Your task to perform on an android device: set the stopwatch Image 0: 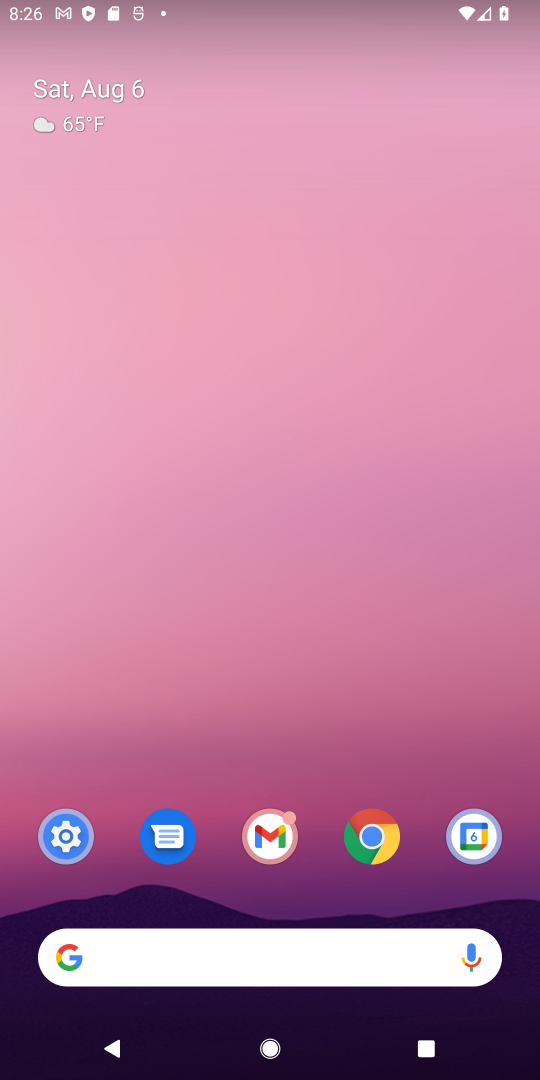
Step 0: drag from (397, 565) to (287, 93)
Your task to perform on an android device: set the stopwatch Image 1: 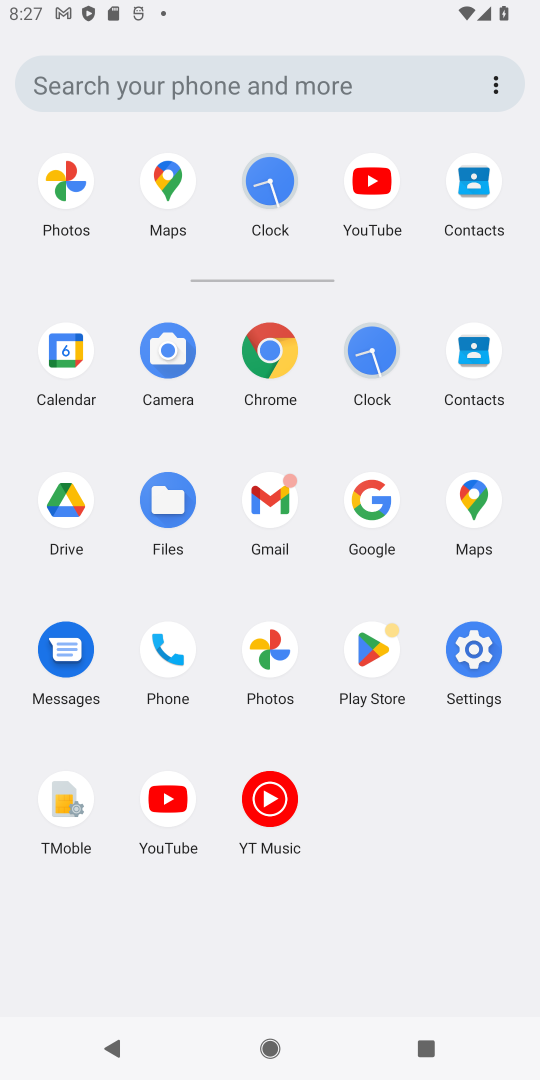
Step 1: click (354, 334)
Your task to perform on an android device: set the stopwatch Image 2: 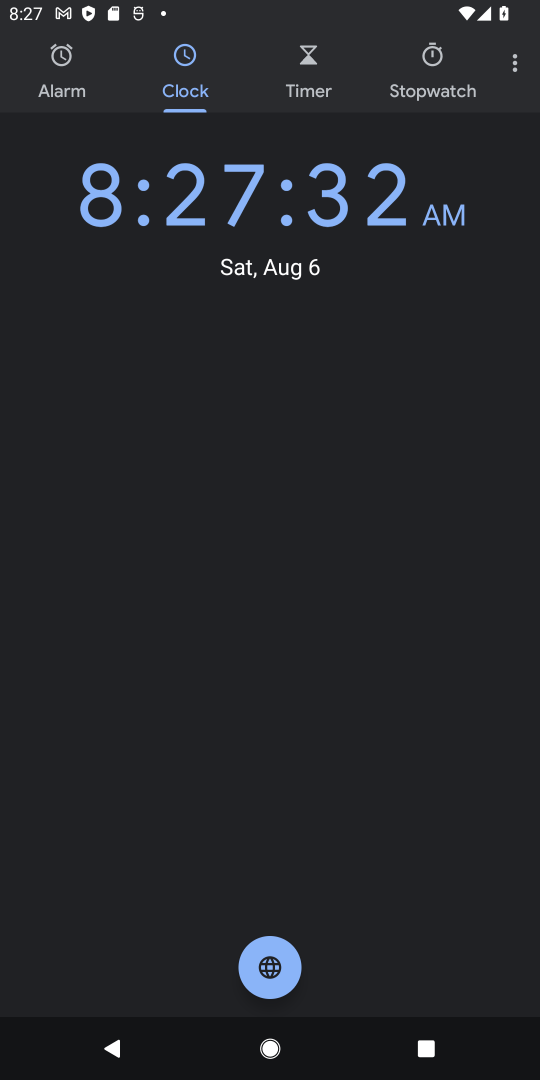
Step 2: click (437, 62)
Your task to perform on an android device: set the stopwatch Image 3: 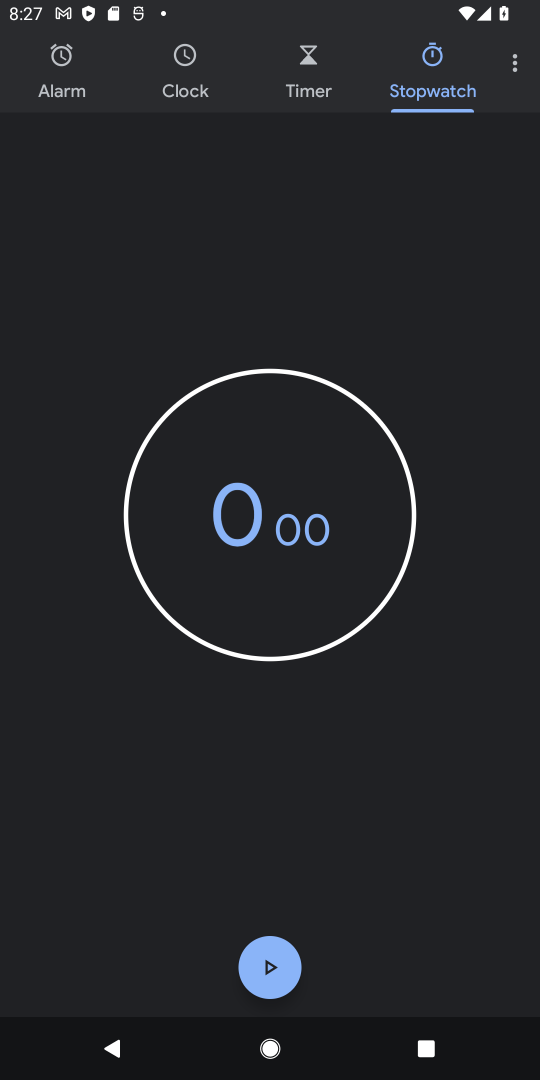
Step 3: click (284, 967)
Your task to perform on an android device: set the stopwatch Image 4: 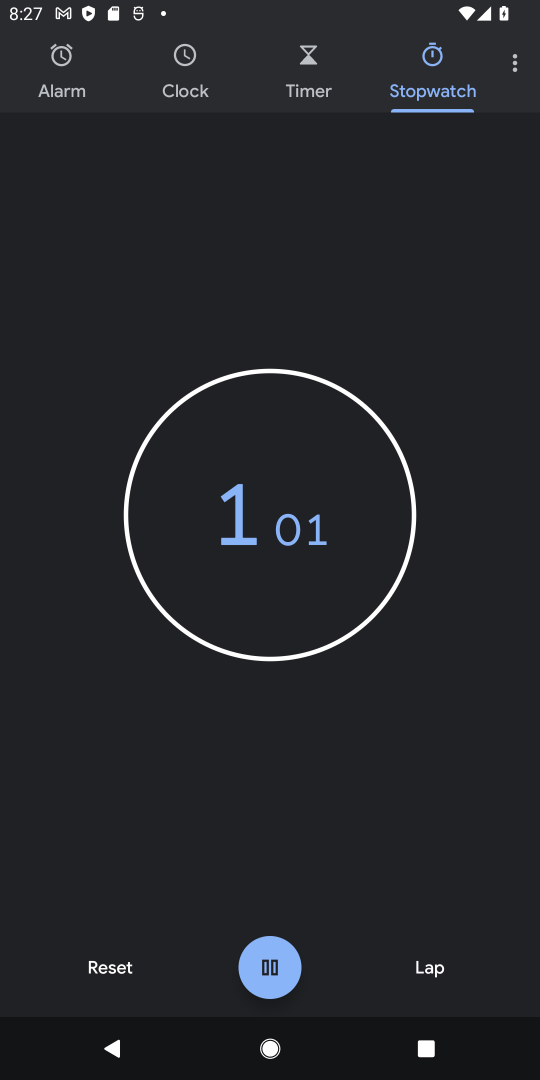
Step 4: click (284, 967)
Your task to perform on an android device: set the stopwatch Image 5: 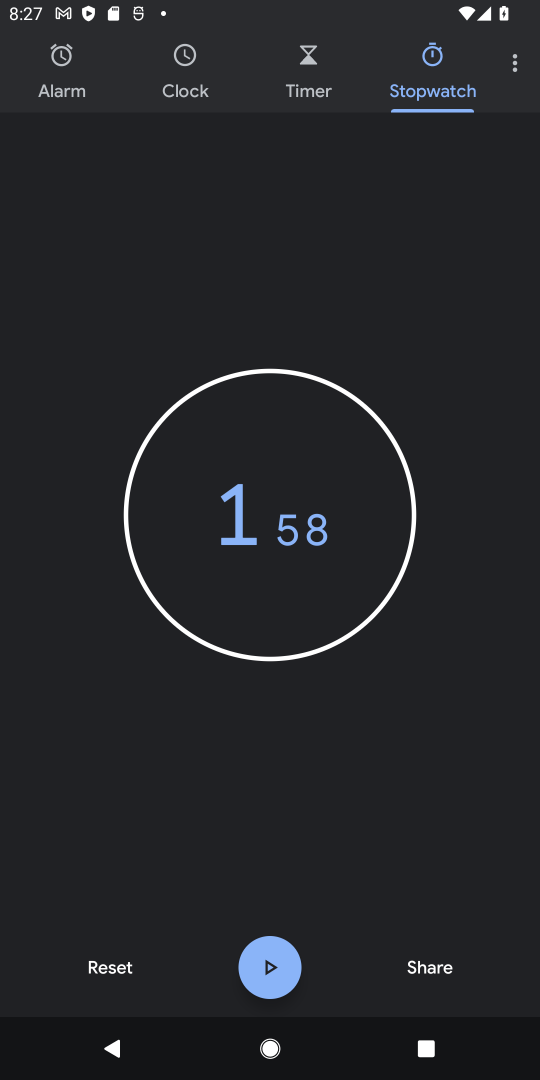
Step 5: task complete